Your task to perform on an android device: Check the news Image 0: 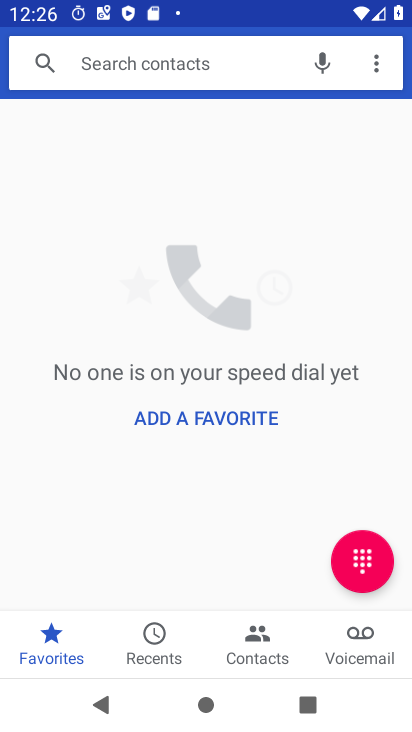
Step 0: press home button
Your task to perform on an android device: Check the news Image 1: 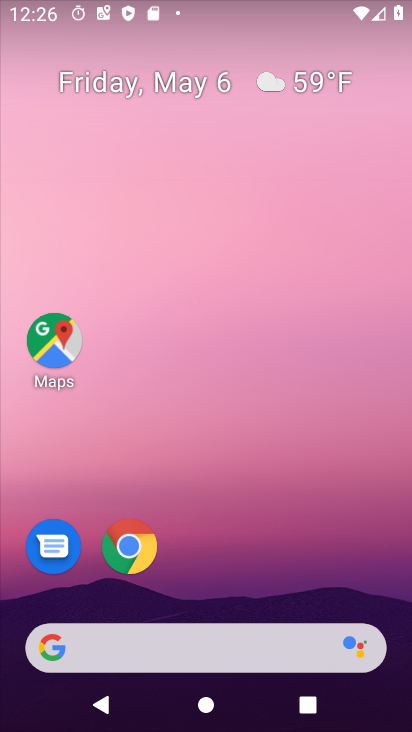
Step 1: drag from (279, 577) to (279, 268)
Your task to perform on an android device: Check the news Image 2: 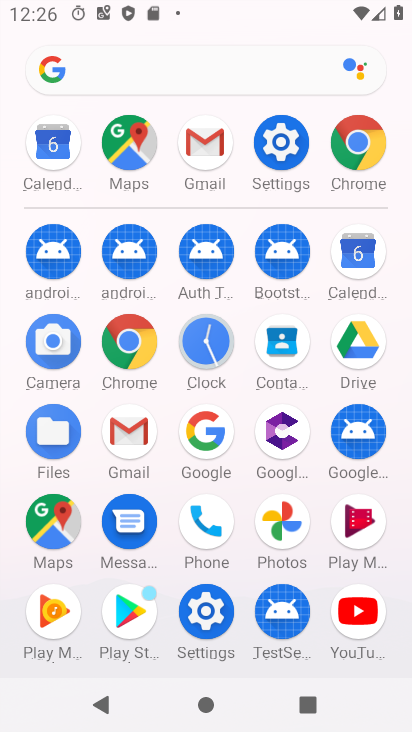
Step 2: click (358, 144)
Your task to perform on an android device: Check the news Image 3: 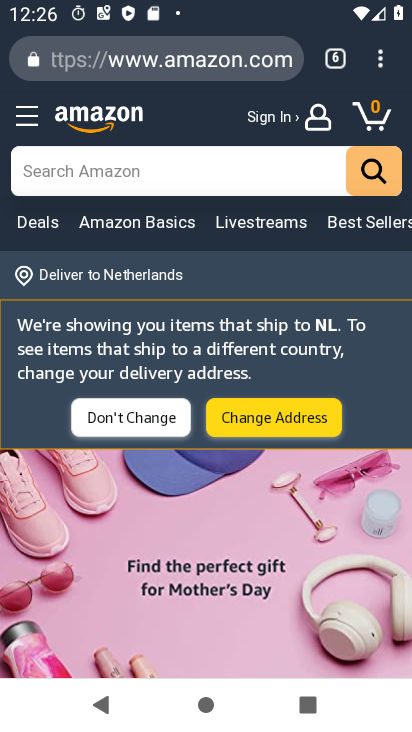
Step 3: click (340, 61)
Your task to perform on an android device: Check the news Image 4: 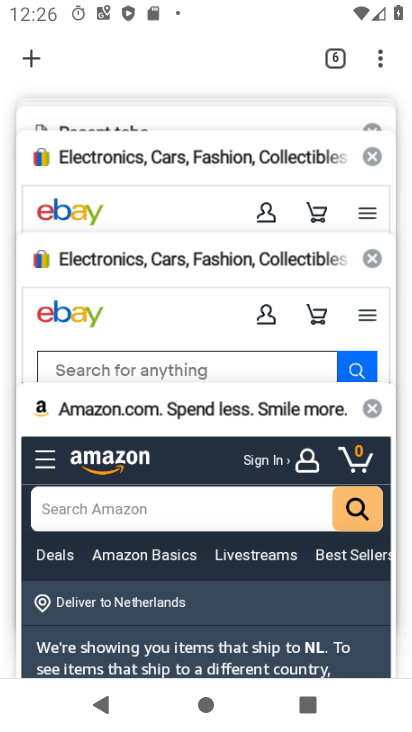
Step 4: click (32, 52)
Your task to perform on an android device: Check the news Image 5: 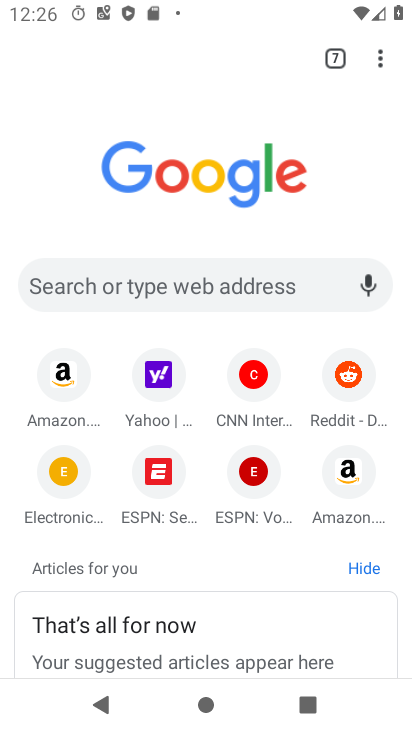
Step 5: click (177, 290)
Your task to perform on an android device: Check the news Image 6: 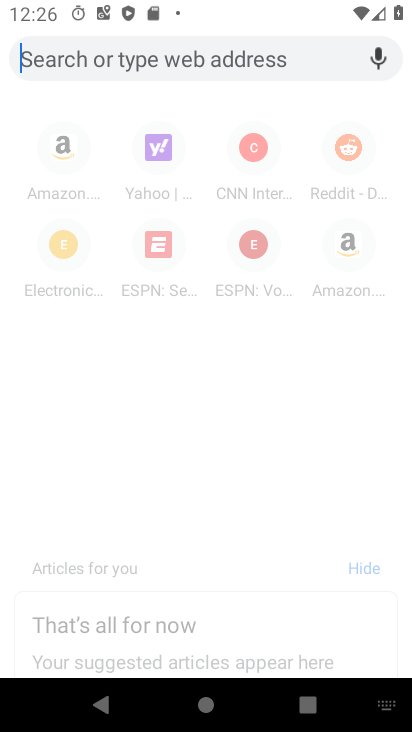
Step 6: type "news"
Your task to perform on an android device: Check the news Image 7: 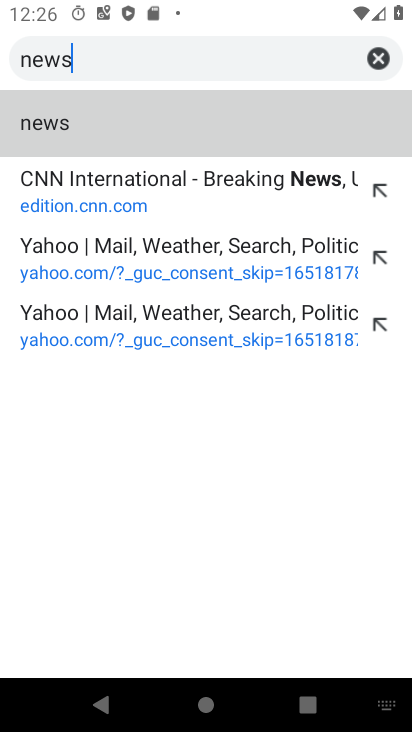
Step 7: click (154, 129)
Your task to perform on an android device: Check the news Image 8: 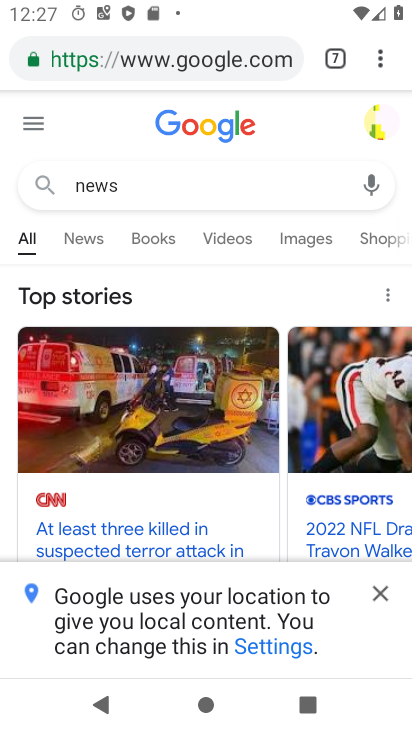
Step 8: click (84, 240)
Your task to perform on an android device: Check the news Image 9: 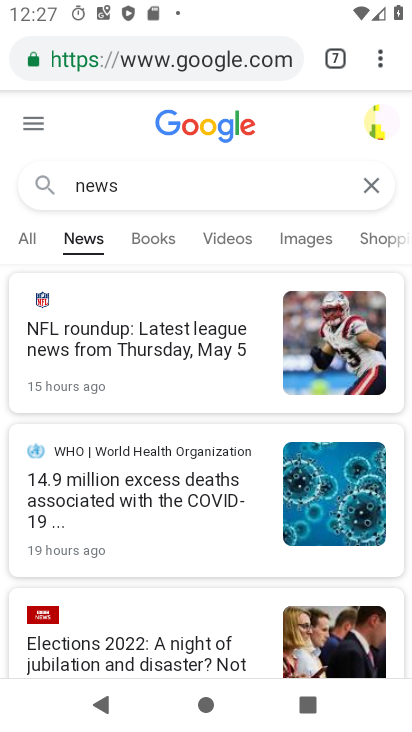
Step 9: task complete